Your task to perform on an android device: toggle pop-ups in chrome Image 0: 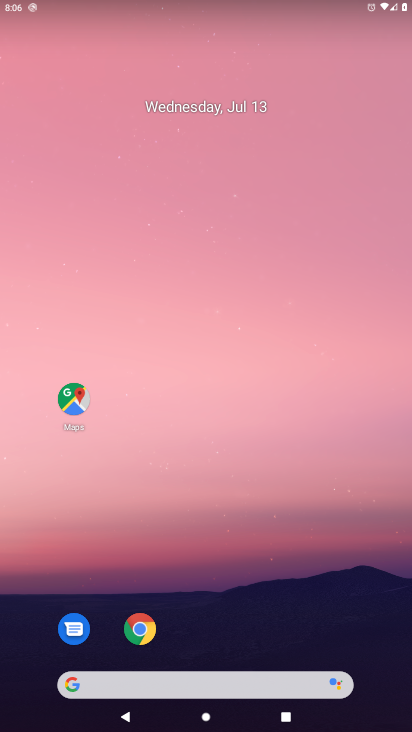
Step 0: click (131, 628)
Your task to perform on an android device: toggle pop-ups in chrome Image 1: 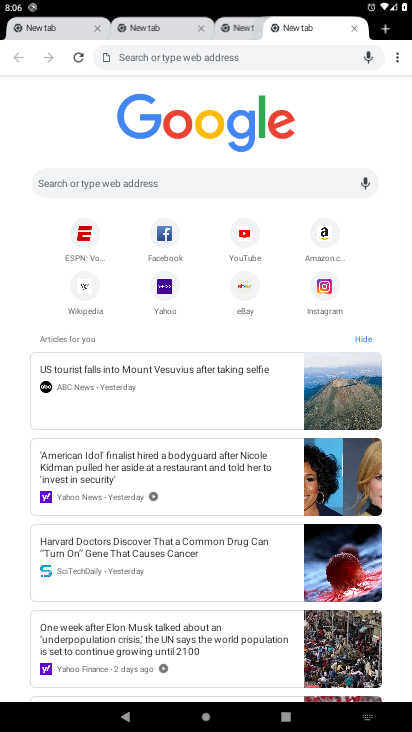
Step 1: click (395, 54)
Your task to perform on an android device: toggle pop-ups in chrome Image 2: 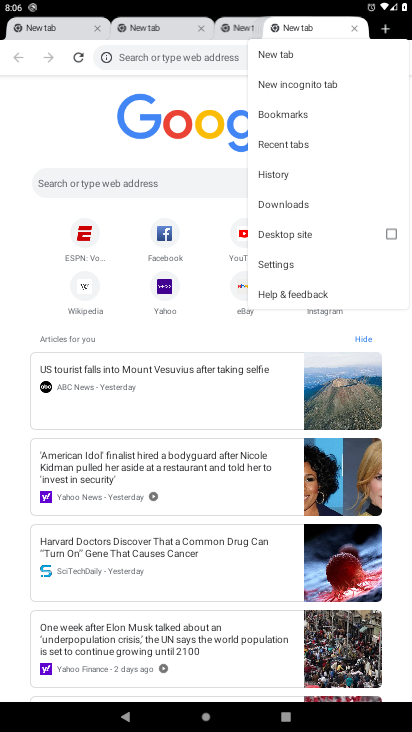
Step 2: click (281, 267)
Your task to perform on an android device: toggle pop-ups in chrome Image 3: 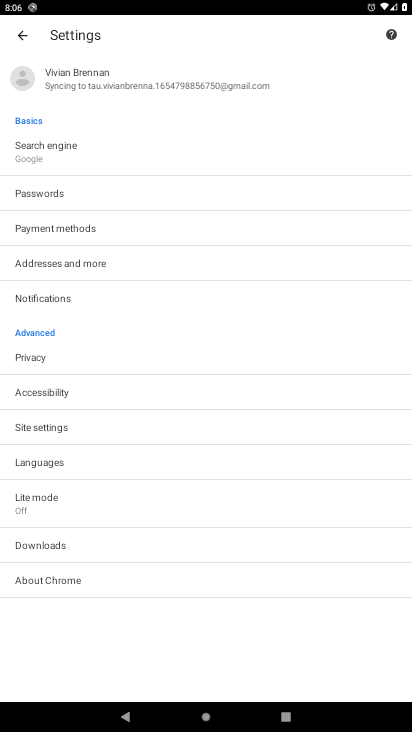
Step 3: click (51, 430)
Your task to perform on an android device: toggle pop-ups in chrome Image 4: 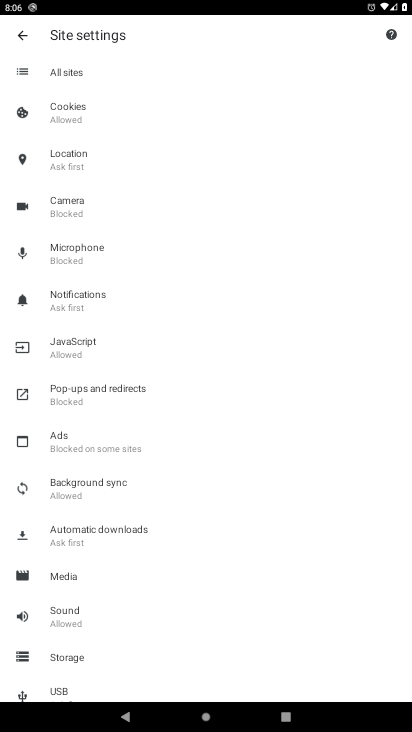
Step 4: click (79, 400)
Your task to perform on an android device: toggle pop-ups in chrome Image 5: 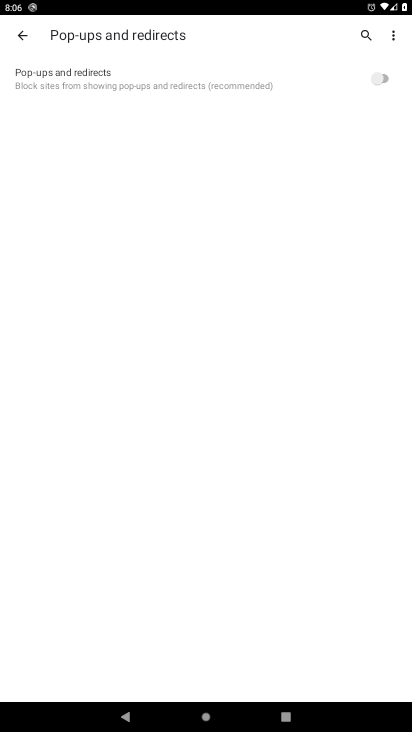
Step 5: click (378, 74)
Your task to perform on an android device: toggle pop-ups in chrome Image 6: 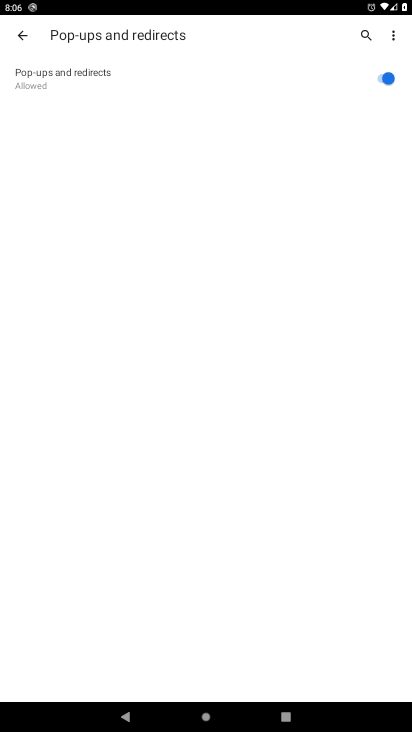
Step 6: task complete